Your task to perform on an android device: Open maps Image 0: 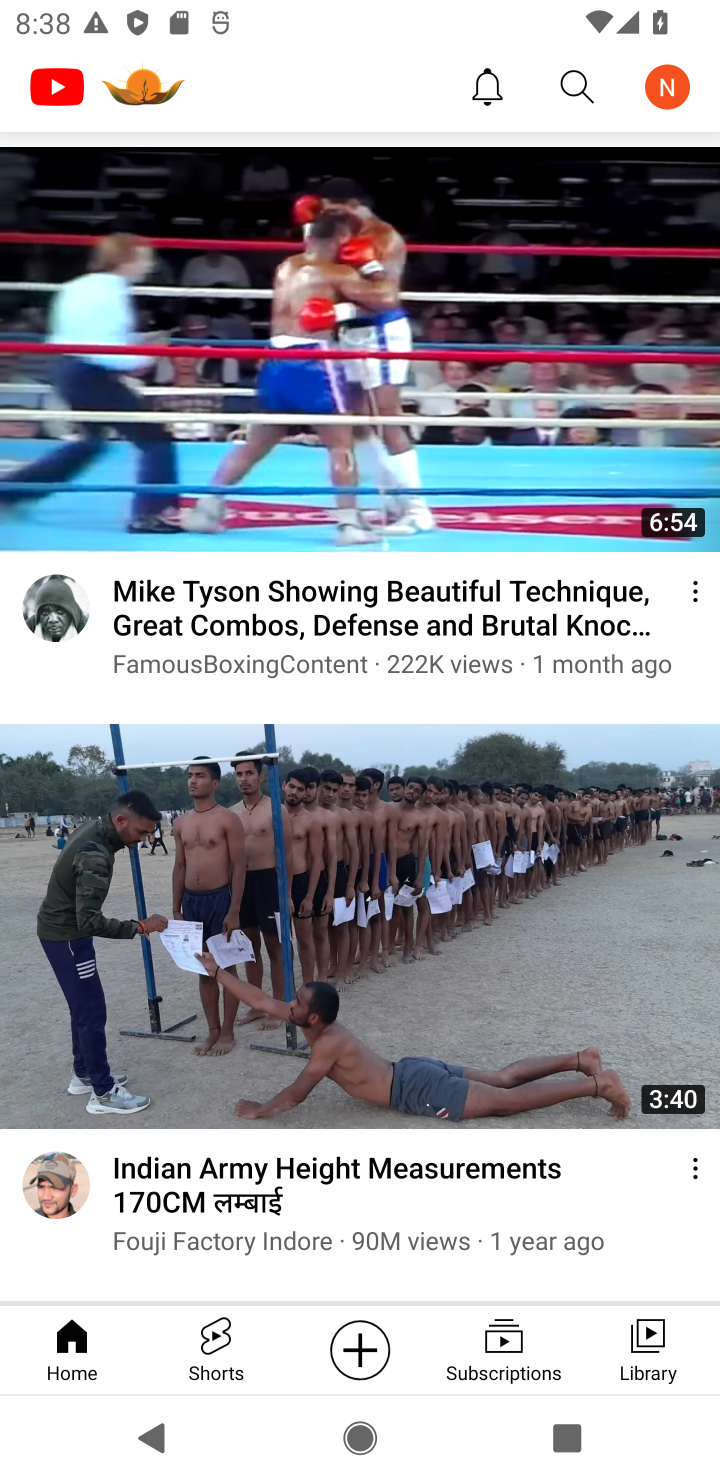
Step 0: press home button
Your task to perform on an android device: Open maps Image 1: 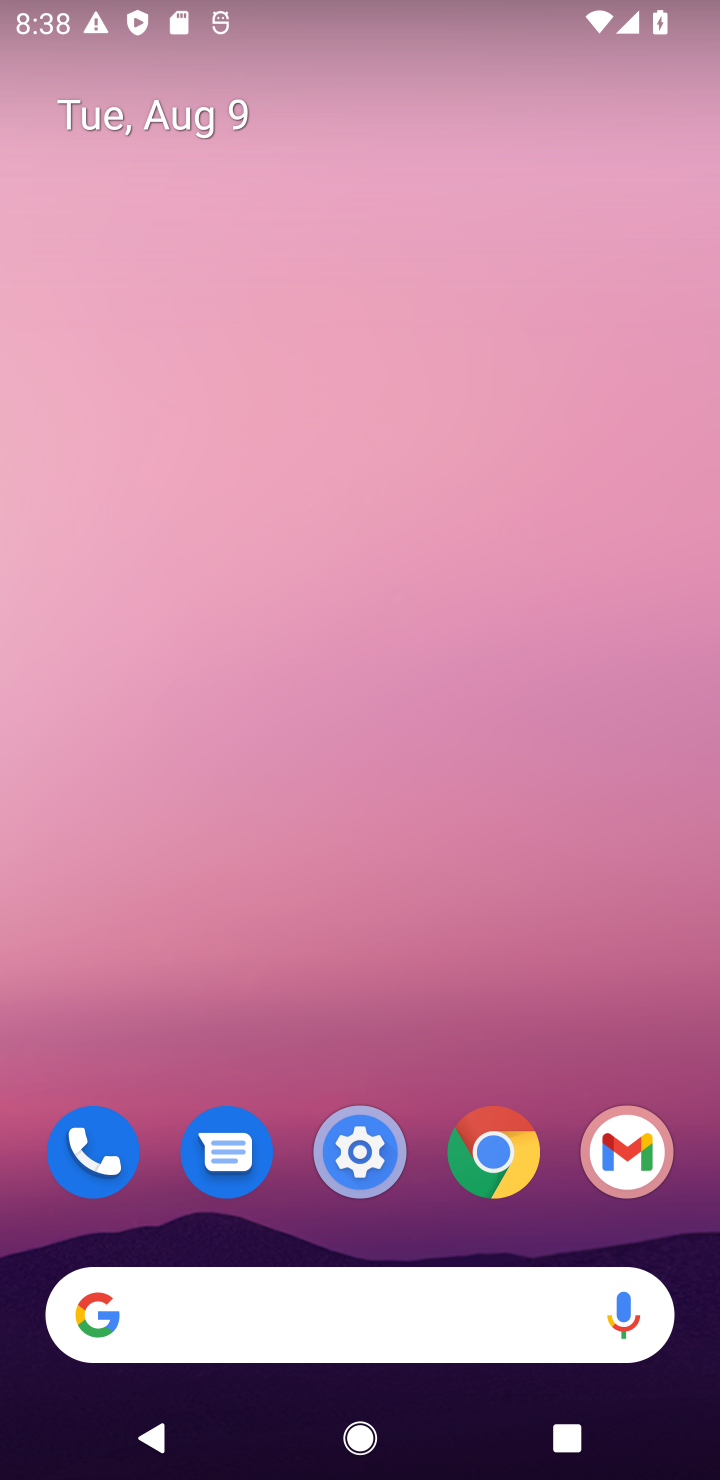
Step 1: drag from (382, 1251) to (536, 355)
Your task to perform on an android device: Open maps Image 2: 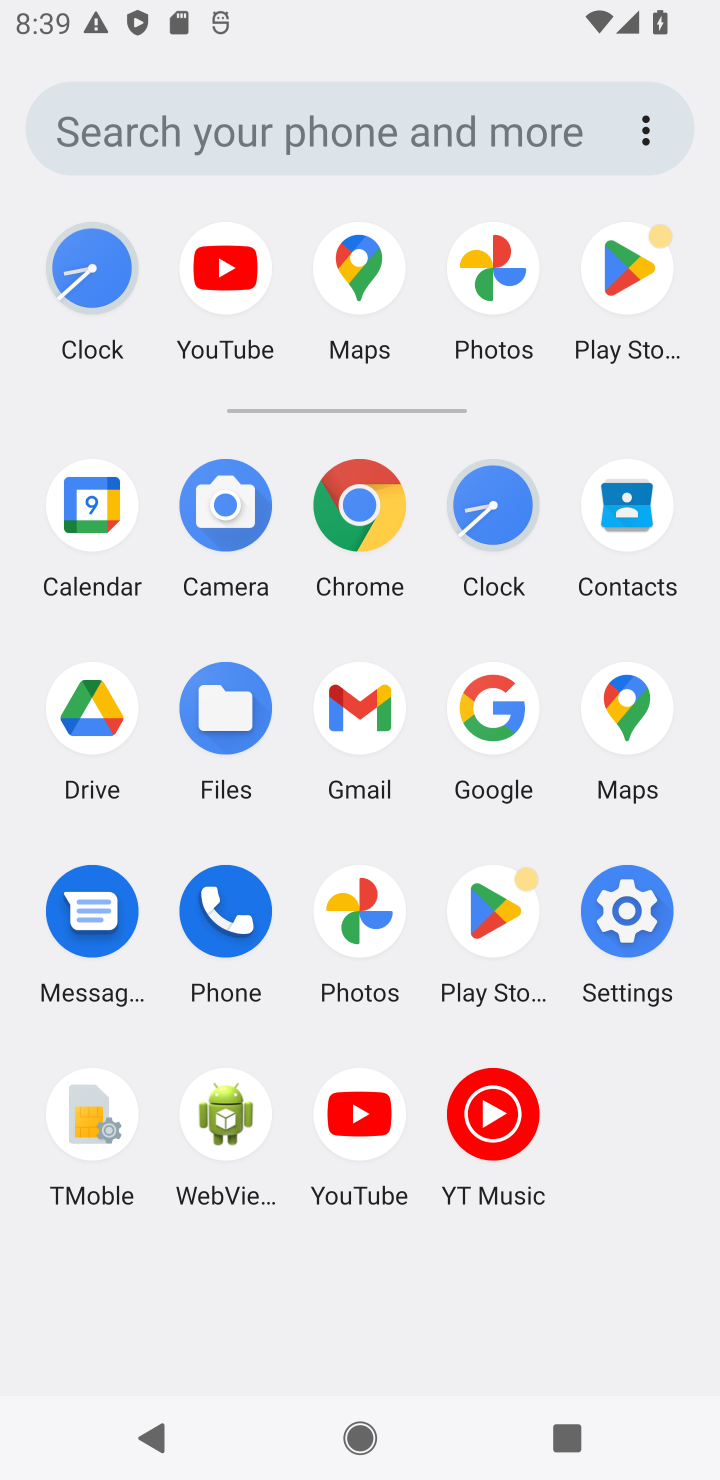
Step 2: click (358, 296)
Your task to perform on an android device: Open maps Image 3: 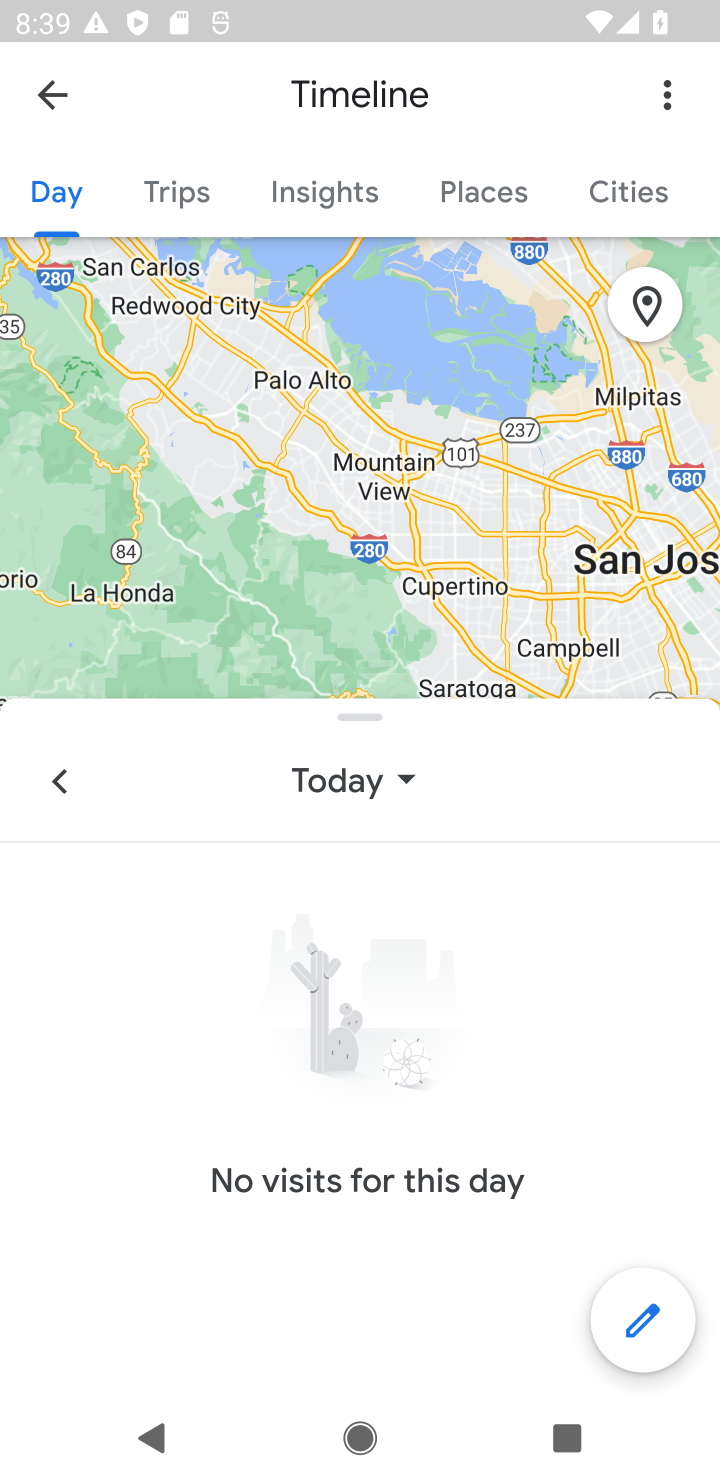
Step 3: task complete